Your task to perform on an android device: toggle translation in the chrome app Image 0: 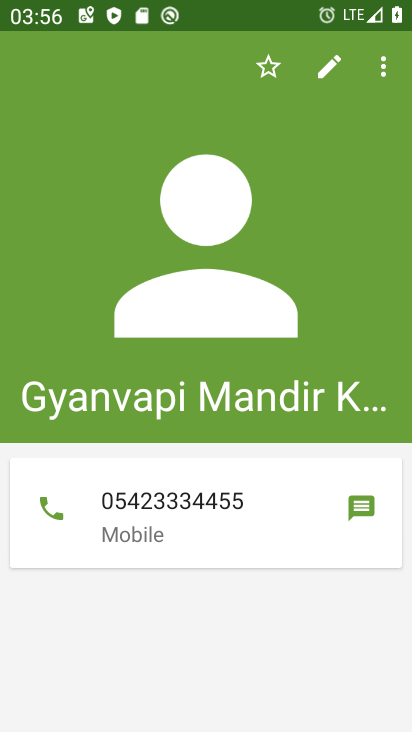
Step 0: press home button
Your task to perform on an android device: toggle translation in the chrome app Image 1: 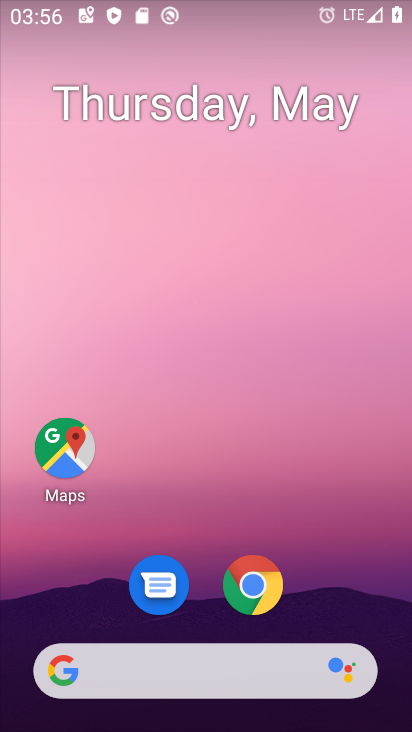
Step 1: click (269, 583)
Your task to perform on an android device: toggle translation in the chrome app Image 2: 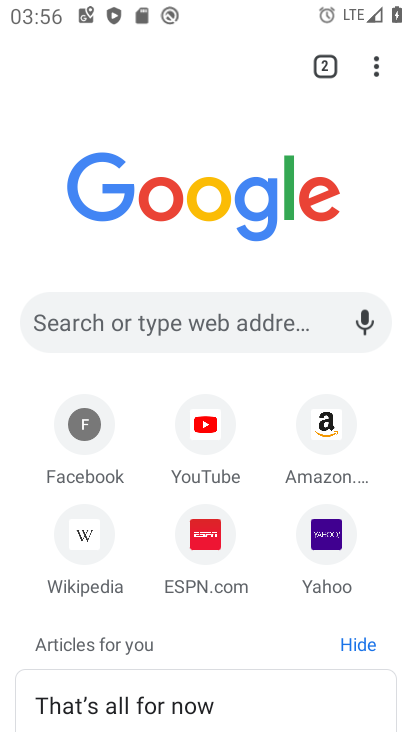
Step 2: click (377, 67)
Your task to perform on an android device: toggle translation in the chrome app Image 3: 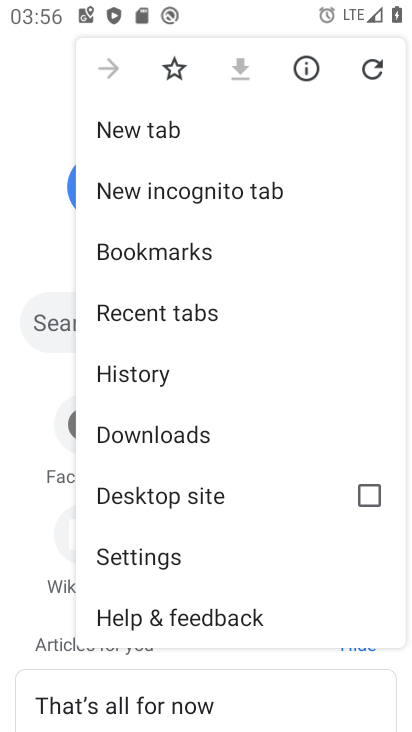
Step 3: drag from (248, 552) to (252, 468)
Your task to perform on an android device: toggle translation in the chrome app Image 4: 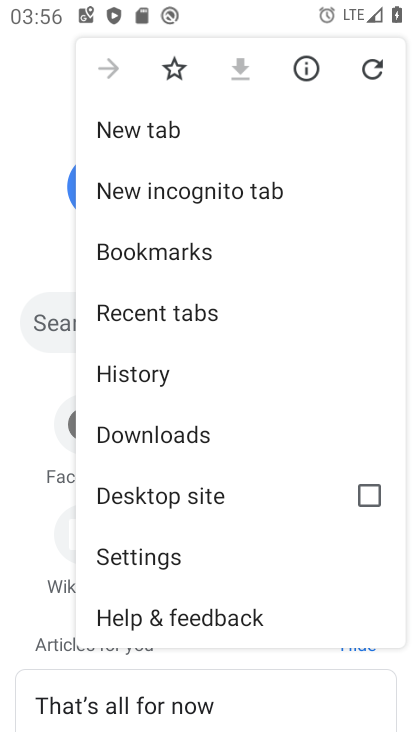
Step 4: click (210, 554)
Your task to perform on an android device: toggle translation in the chrome app Image 5: 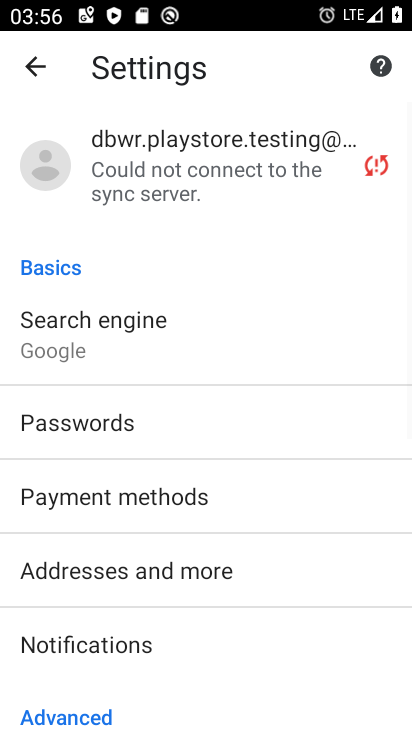
Step 5: drag from (231, 632) to (293, 199)
Your task to perform on an android device: toggle translation in the chrome app Image 6: 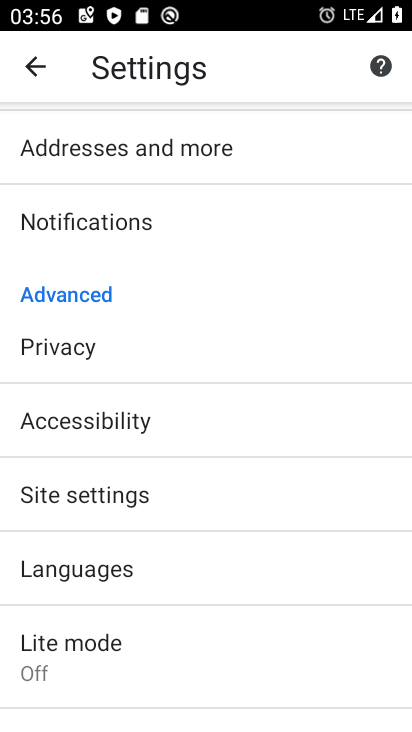
Step 6: click (225, 573)
Your task to perform on an android device: toggle translation in the chrome app Image 7: 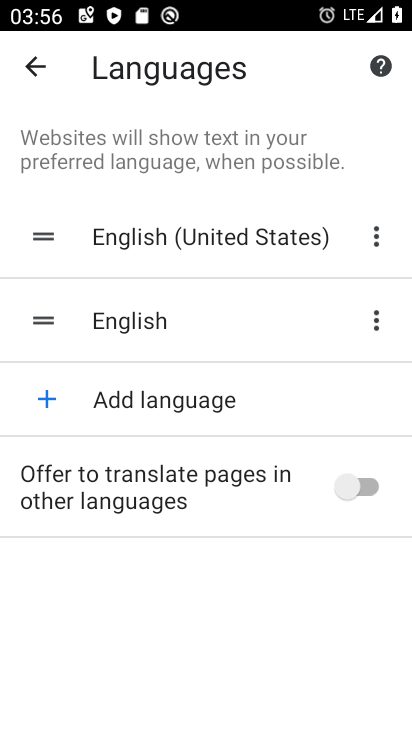
Step 7: click (366, 485)
Your task to perform on an android device: toggle translation in the chrome app Image 8: 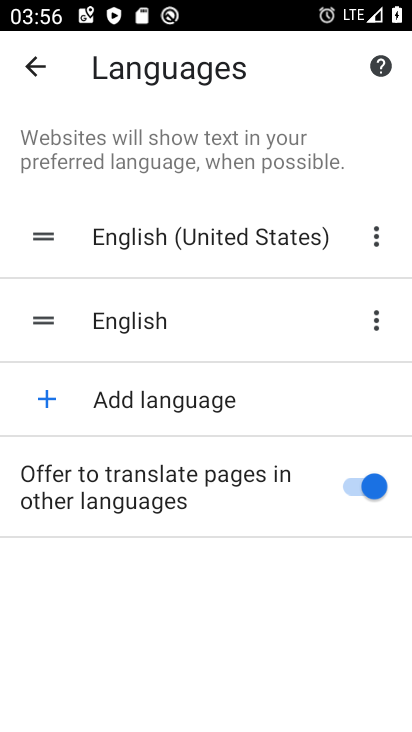
Step 8: task complete